Your task to perform on an android device: Open calendar and show me the second week of next month Image 0: 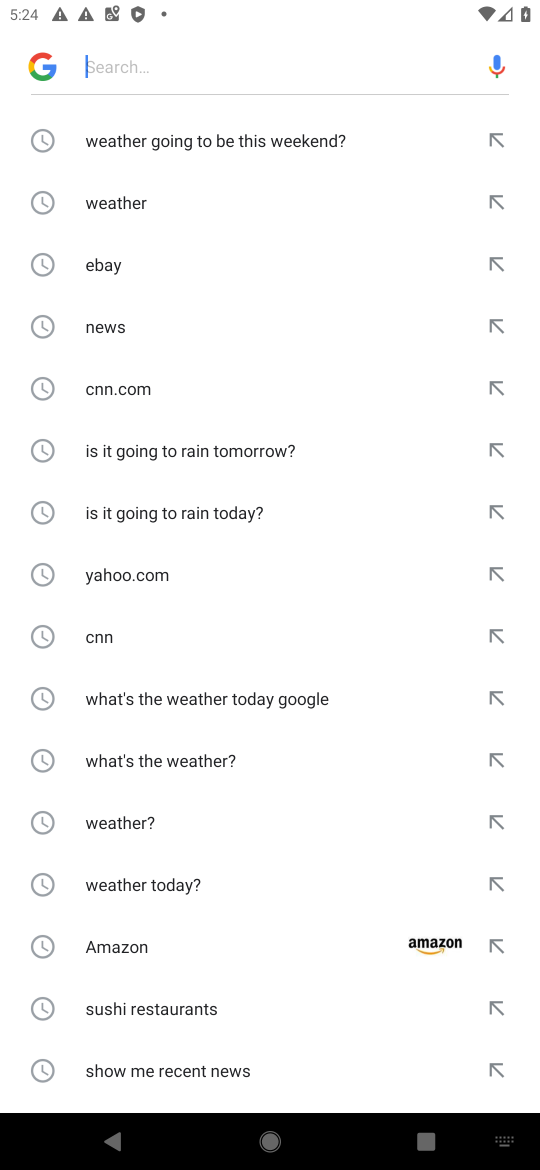
Step 0: press home button
Your task to perform on an android device: Open calendar and show me the second week of next month Image 1: 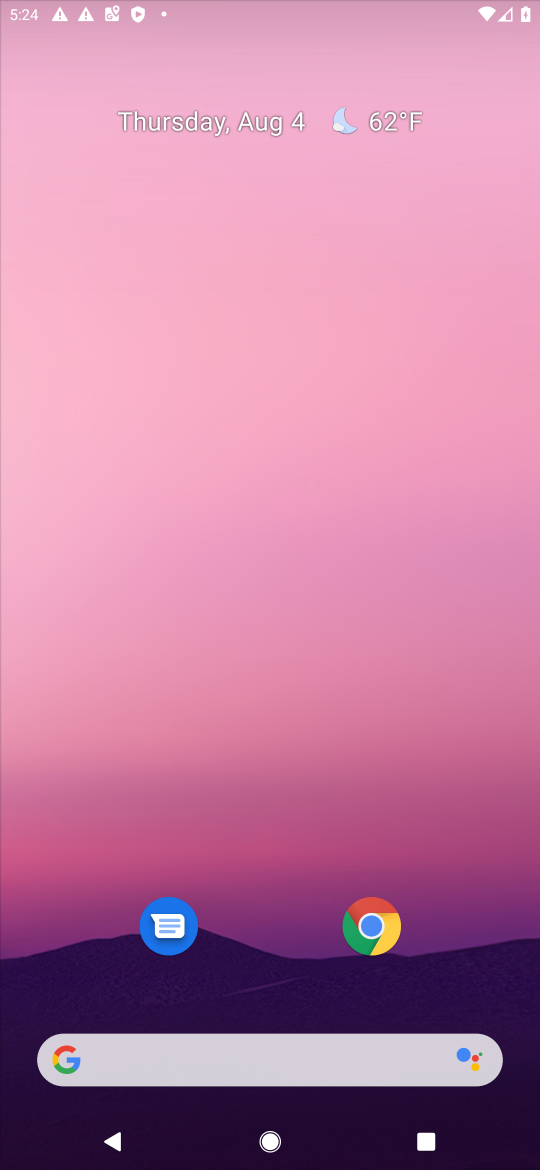
Step 1: drag from (289, 1021) to (296, 127)
Your task to perform on an android device: Open calendar and show me the second week of next month Image 2: 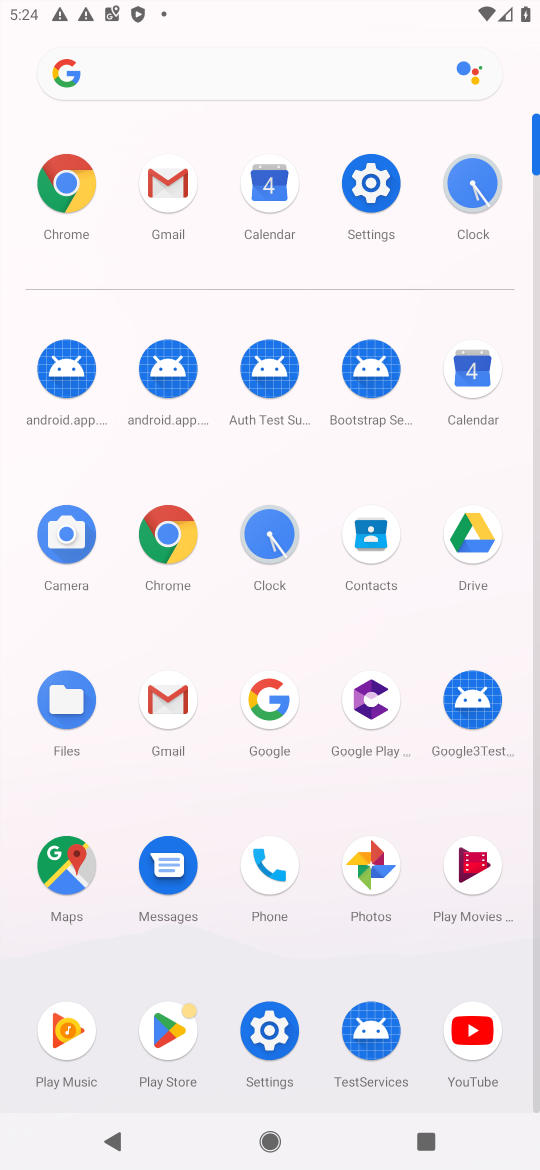
Step 2: click (476, 373)
Your task to perform on an android device: Open calendar and show me the second week of next month Image 3: 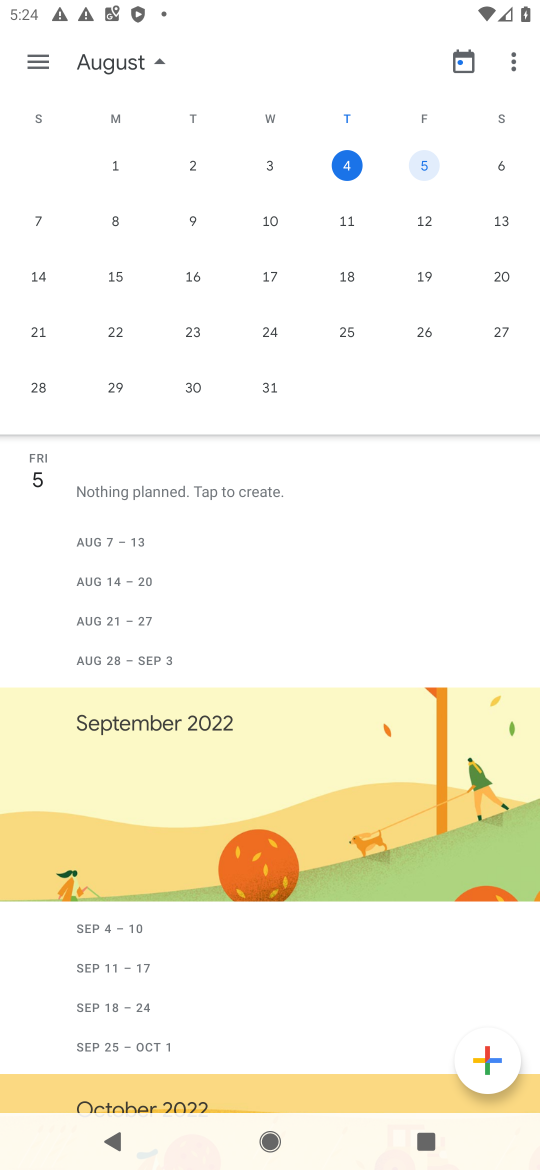
Step 3: drag from (434, 295) to (21, 205)
Your task to perform on an android device: Open calendar and show me the second week of next month Image 4: 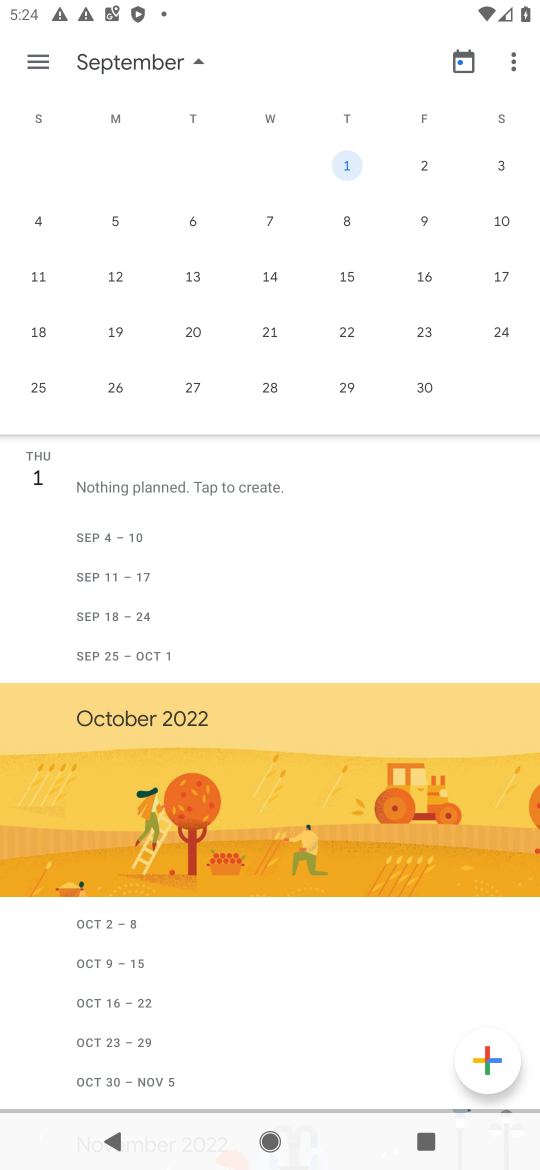
Step 4: click (46, 226)
Your task to perform on an android device: Open calendar and show me the second week of next month Image 5: 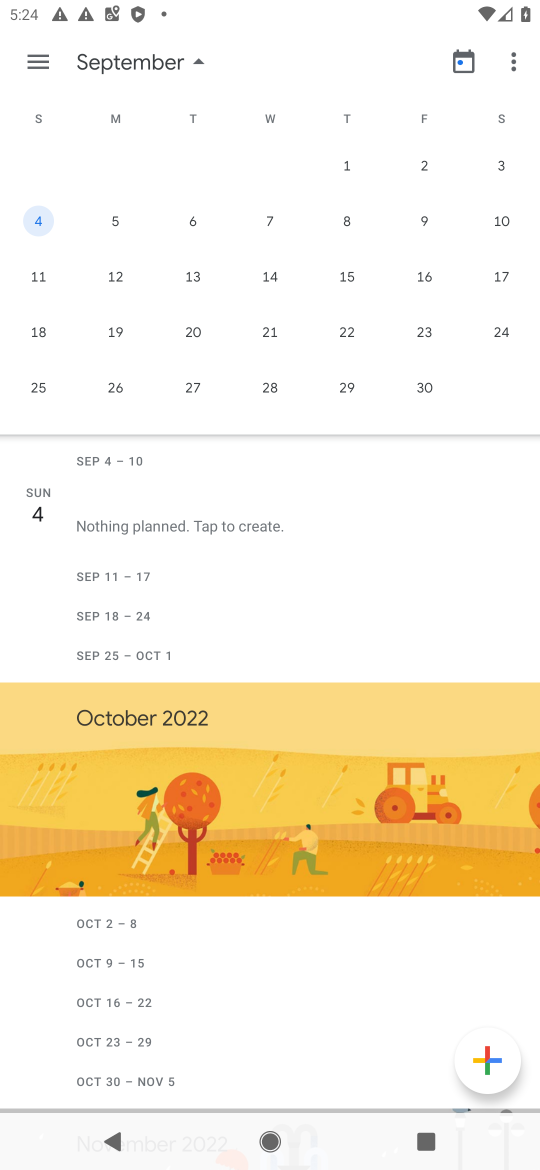
Step 5: click (120, 225)
Your task to perform on an android device: Open calendar and show me the second week of next month Image 6: 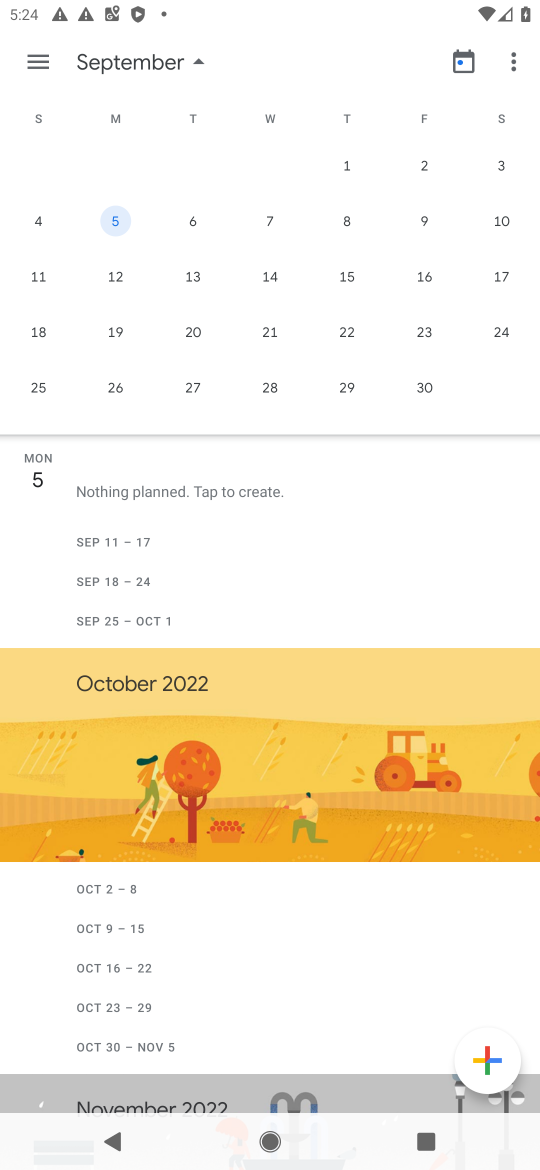
Step 6: click (203, 227)
Your task to perform on an android device: Open calendar and show me the second week of next month Image 7: 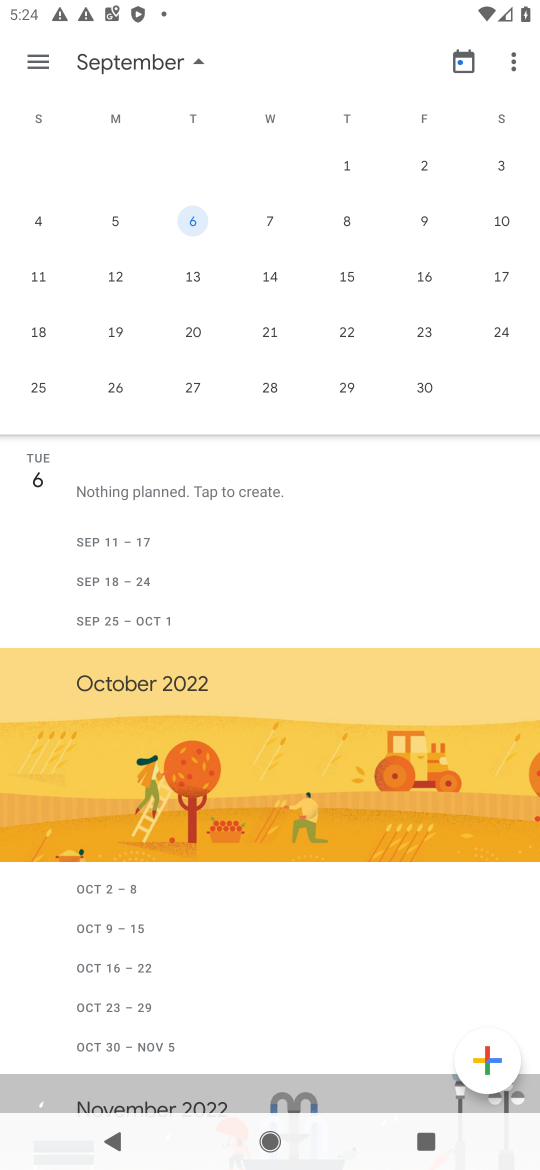
Step 7: click (268, 226)
Your task to perform on an android device: Open calendar and show me the second week of next month Image 8: 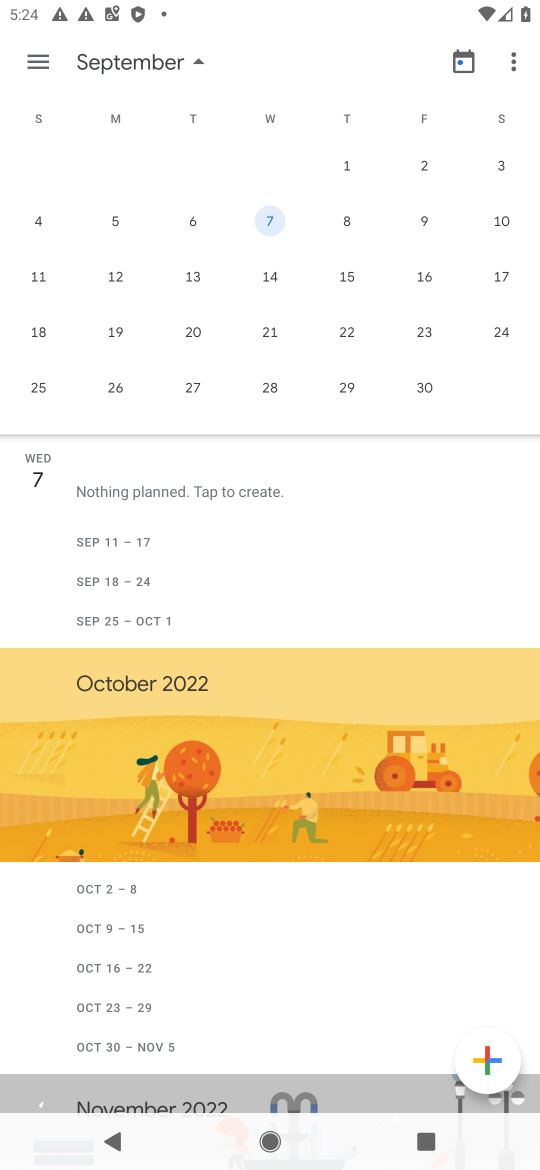
Step 8: click (348, 234)
Your task to perform on an android device: Open calendar and show me the second week of next month Image 9: 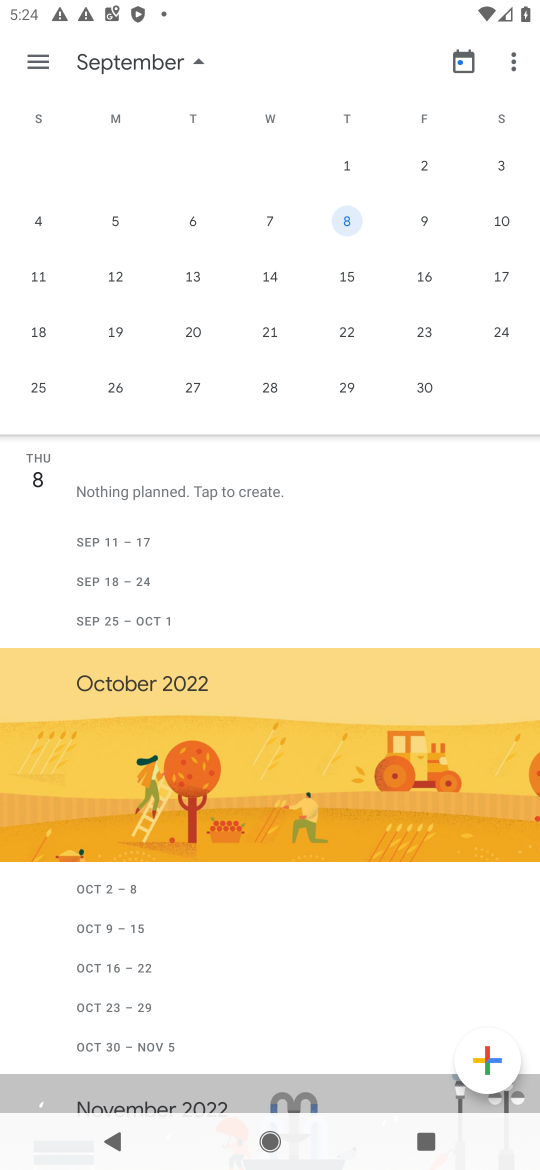
Step 9: click (436, 221)
Your task to perform on an android device: Open calendar and show me the second week of next month Image 10: 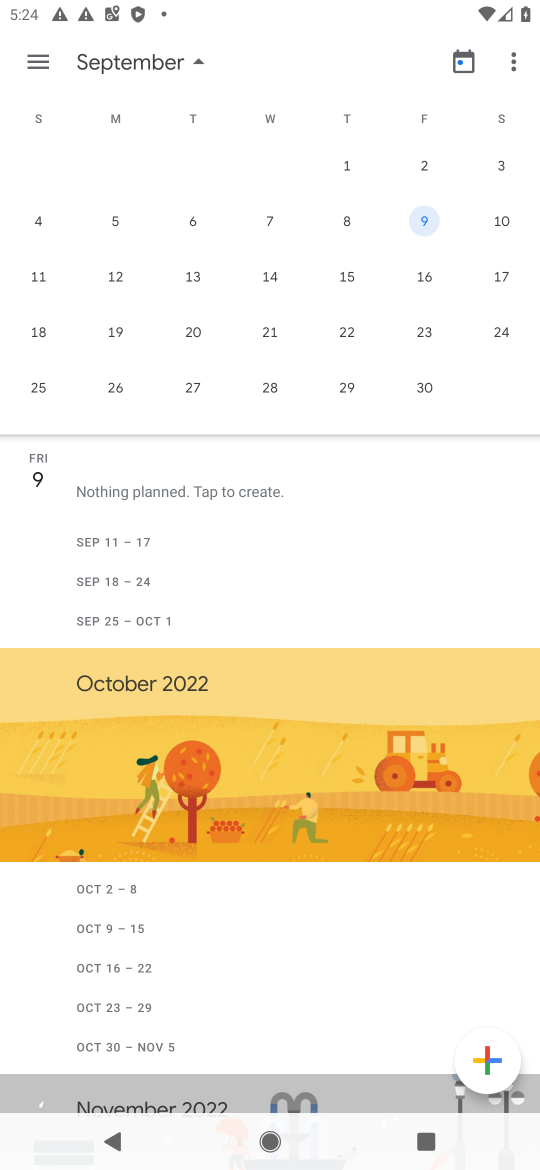
Step 10: click (498, 223)
Your task to perform on an android device: Open calendar and show me the second week of next month Image 11: 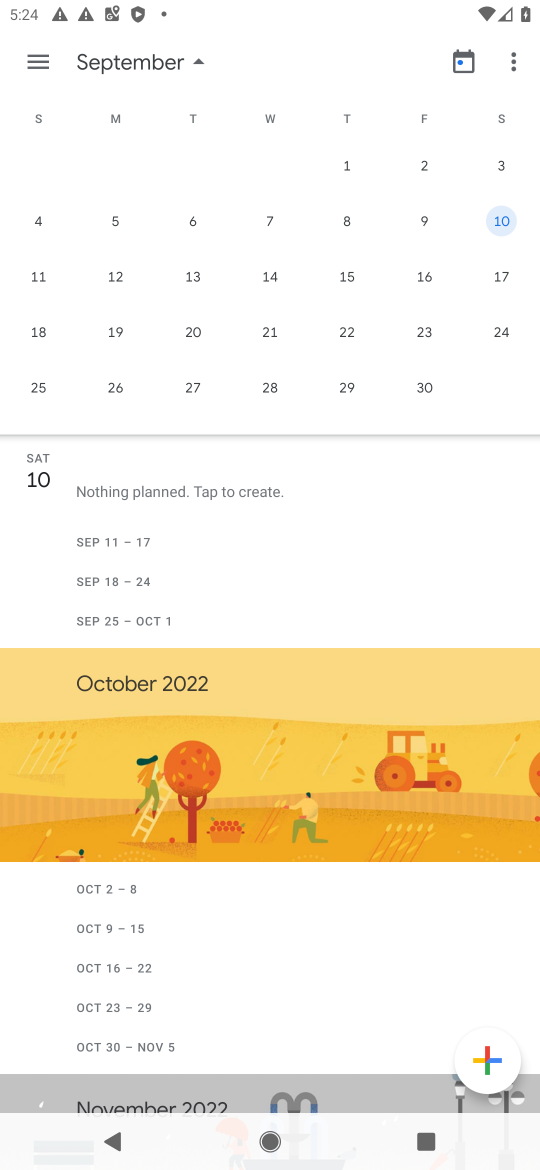
Step 11: task complete